Your task to perform on an android device: Open the stopwatch Image 0: 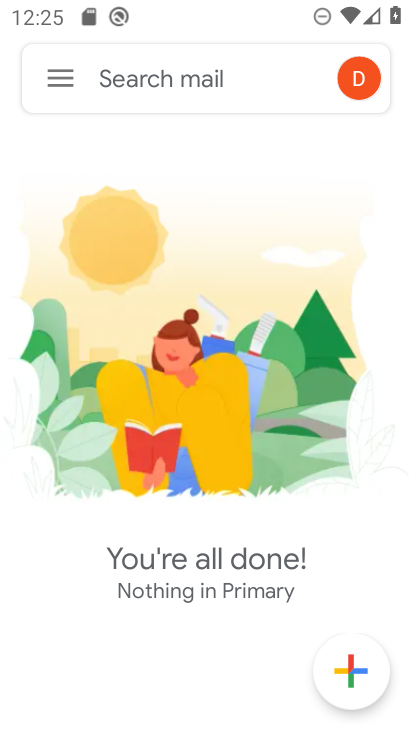
Step 0: press home button
Your task to perform on an android device: Open the stopwatch Image 1: 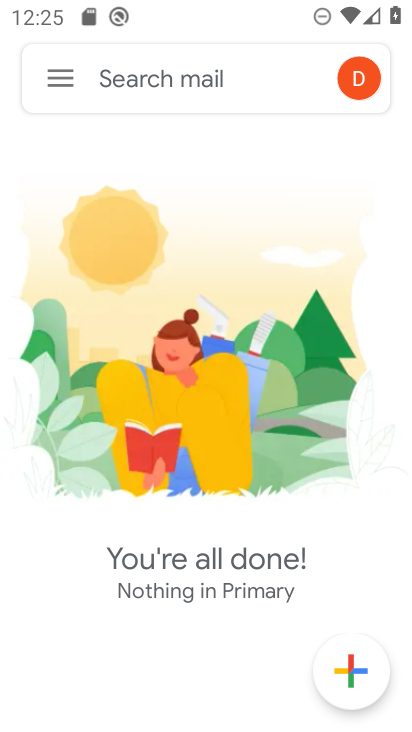
Step 1: press home button
Your task to perform on an android device: Open the stopwatch Image 2: 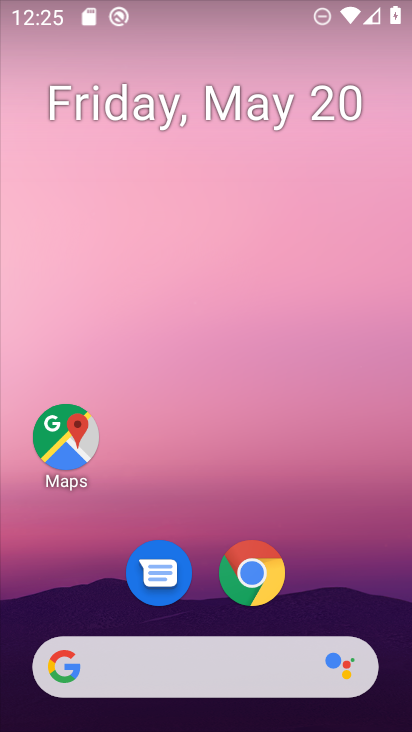
Step 2: drag from (193, 725) to (186, 183)
Your task to perform on an android device: Open the stopwatch Image 3: 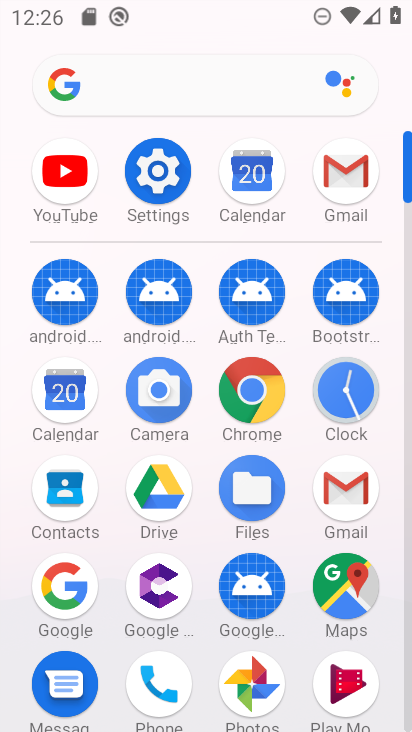
Step 3: click (355, 399)
Your task to perform on an android device: Open the stopwatch Image 4: 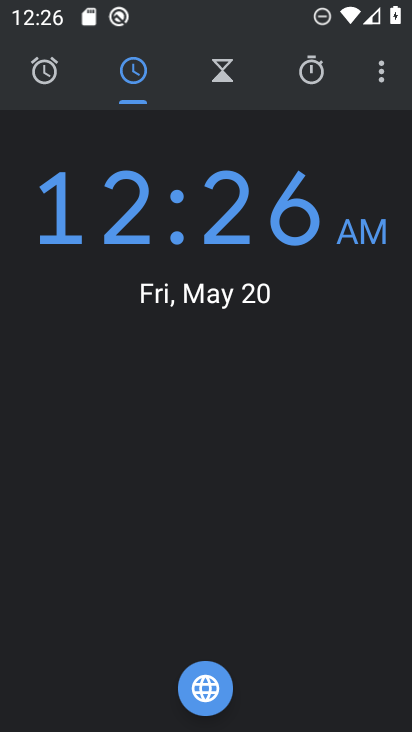
Step 4: click (313, 72)
Your task to perform on an android device: Open the stopwatch Image 5: 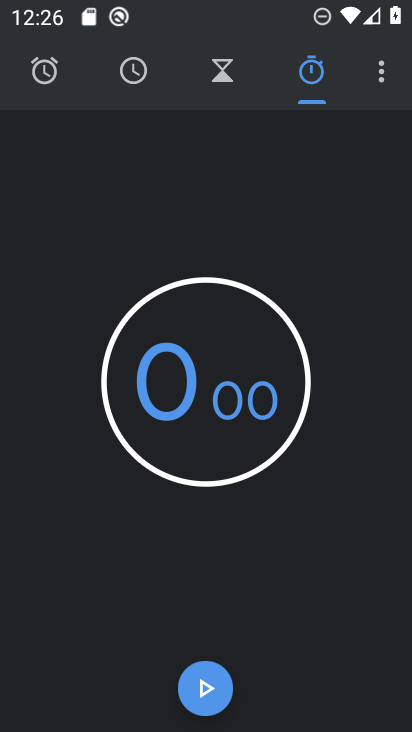
Step 5: task complete